Your task to perform on an android device: set the timer Image 0: 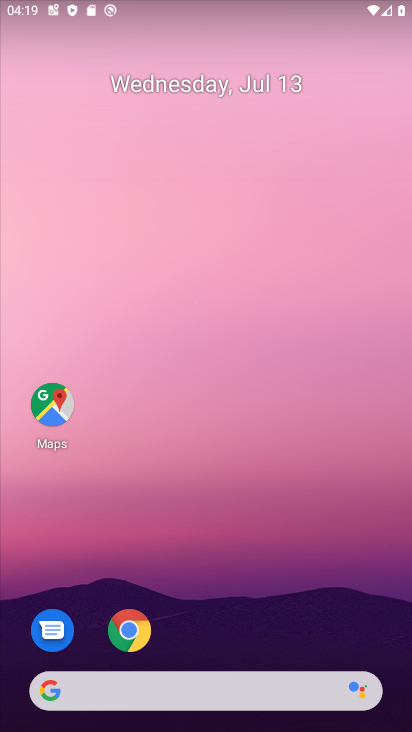
Step 0: drag from (265, 694) to (308, 1)
Your task to perform on an android device: set the timer Image 1: 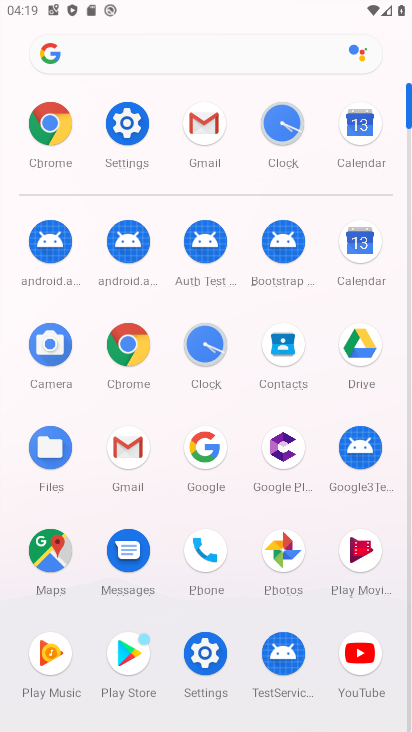
Step 1: click (206, 357)
Your task to perform on an android device: set the timer Image 2: 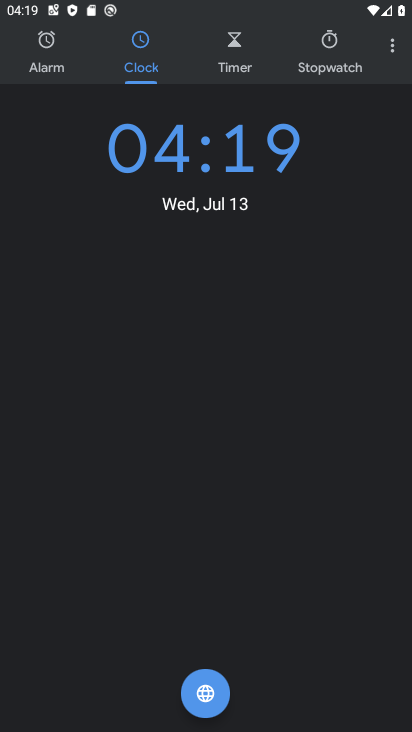
Step 2: click (223, 56)
Your task to perform on an android device: set the timer Image 3: 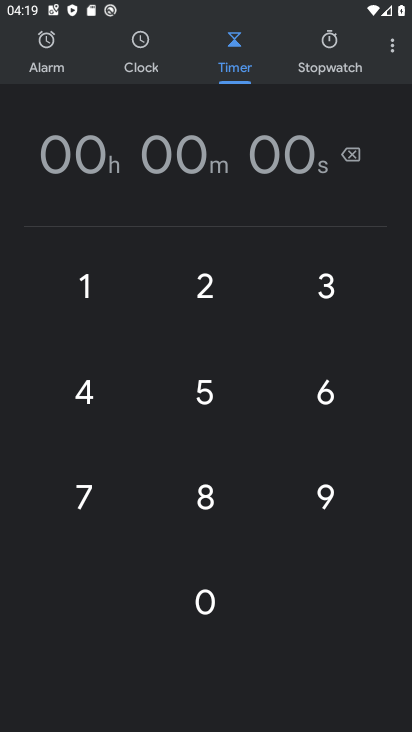
Step 3: click (336, 513)
Your task to perform on an android device: set the timer Image 4: 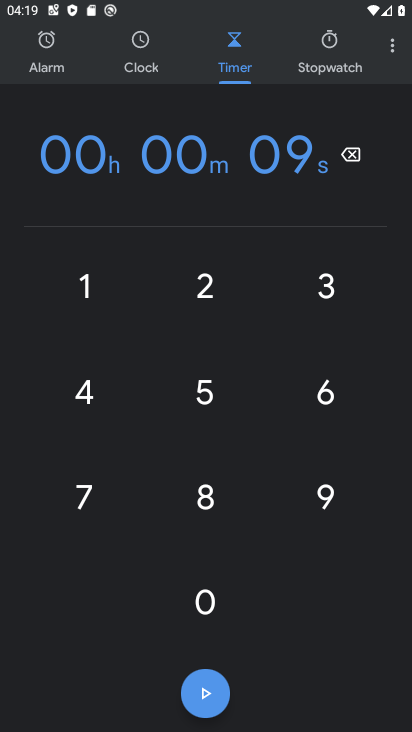
Step 4: click (201, 497)
Your task to perform on an android device: set the timer Image 5: 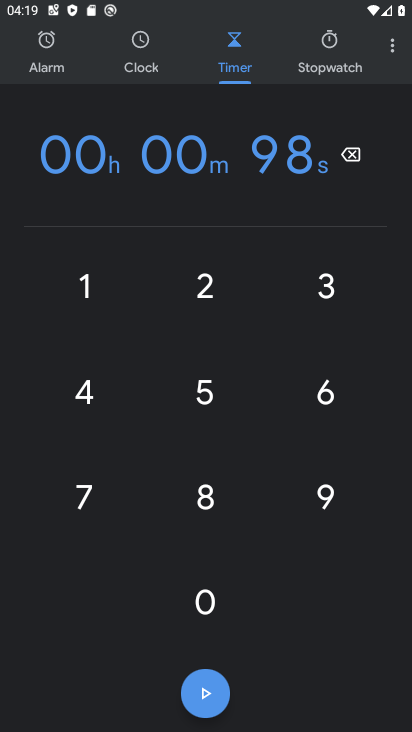
Step 5: click (333, 383)
Your task to perform on an android device: set the timer Image 6: 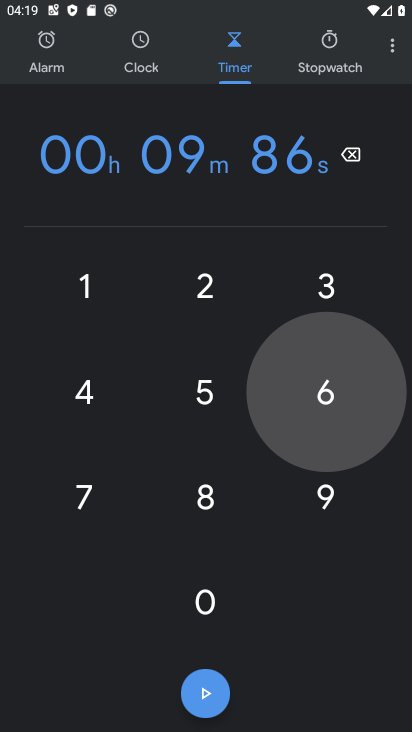
Step 6: click (332, 294)
Your task to perform on an android device: set the timer Image 7: 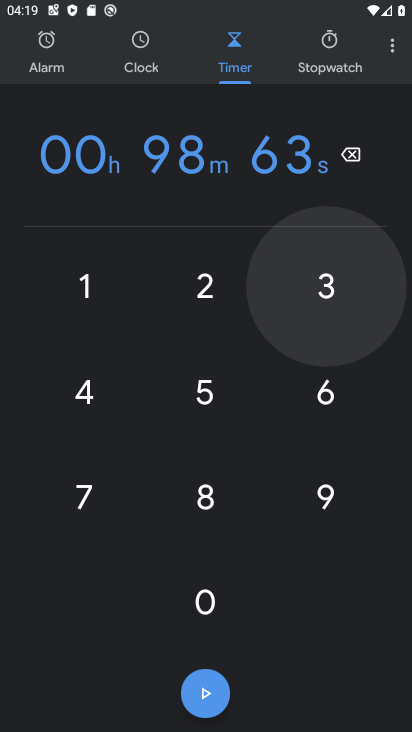
Step 7: click (200, 279)
Your task to perform on an android device: set the timer Image 8: 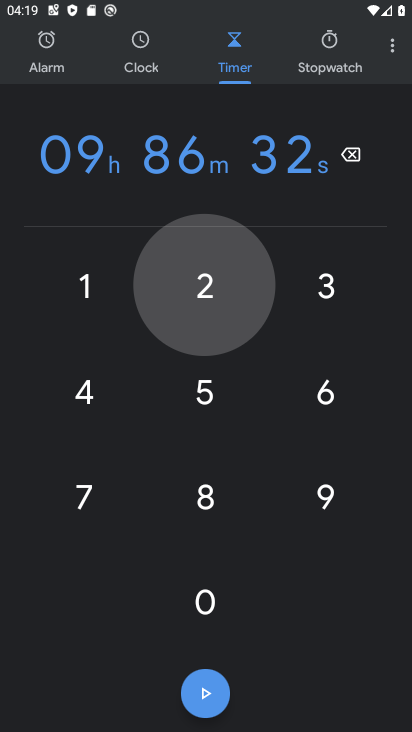
Step 8: click (54, 286)
Your task to perform on an android device: set the timer Image 9: 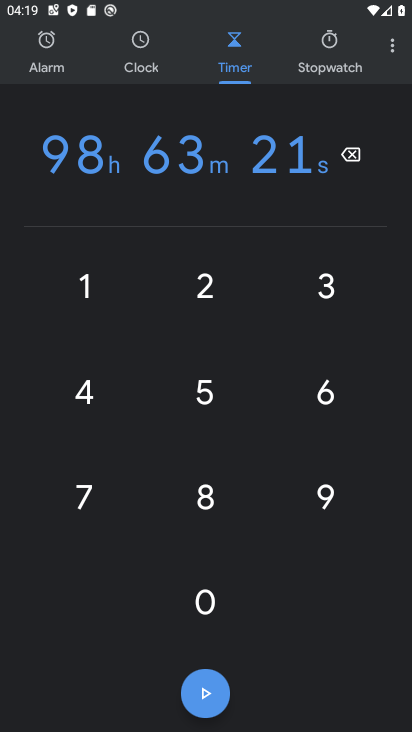
Step 9: click (210, 677)
Your task to perform on an android device: set the timer Image 10: 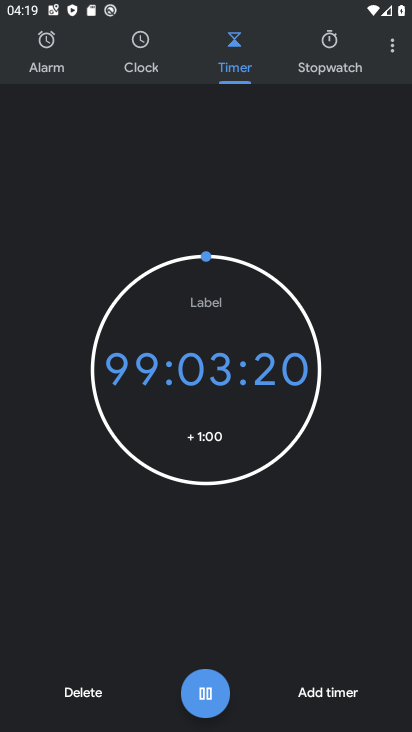
Step 10: task complete